Your task to perform on an android device: turn on airplane mode Image 0: 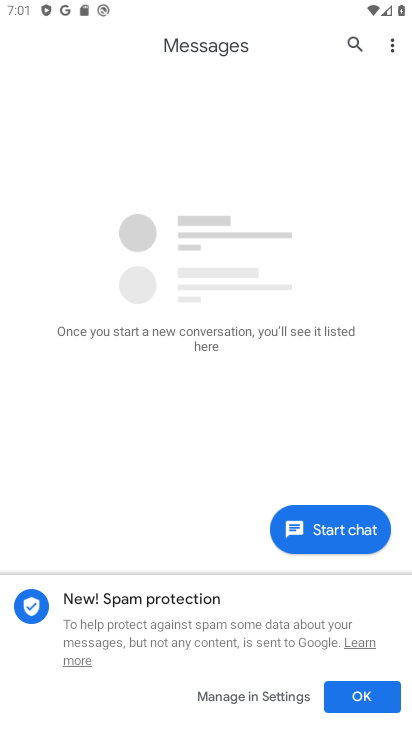
Step 0: press home button
Your task to perform on an android device: turn on airplane mode Image 1: 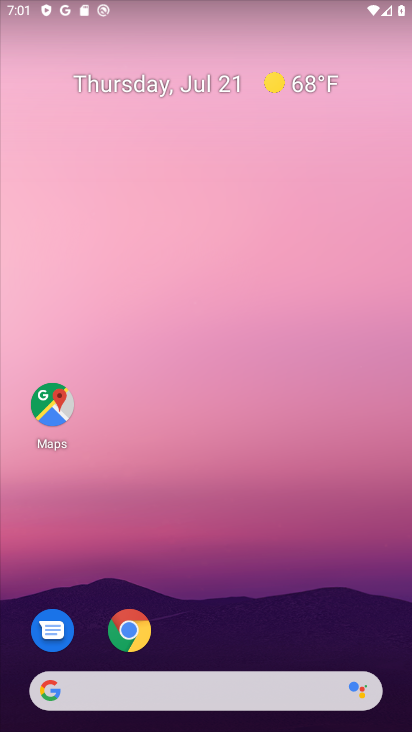
Step 1: drag from (251, 611) to (248, 266)
Your task to perform on an android device: turn on airplane mode Image 2: 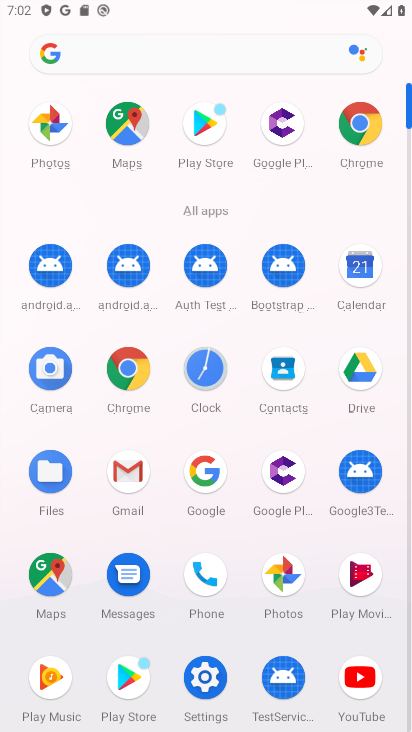
Step 2: click (198, 671)
Your task to perform on an android device: turn on airplane mode Image 3: 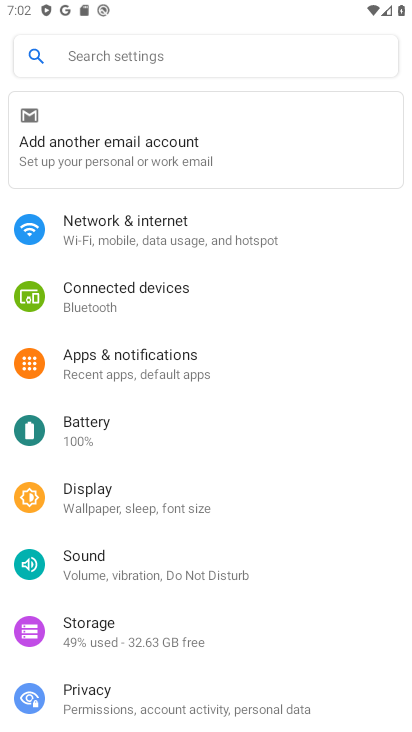
Step 3: click (114, 237)
Your task to perform on an android device: turn on airplane mode Image 4: 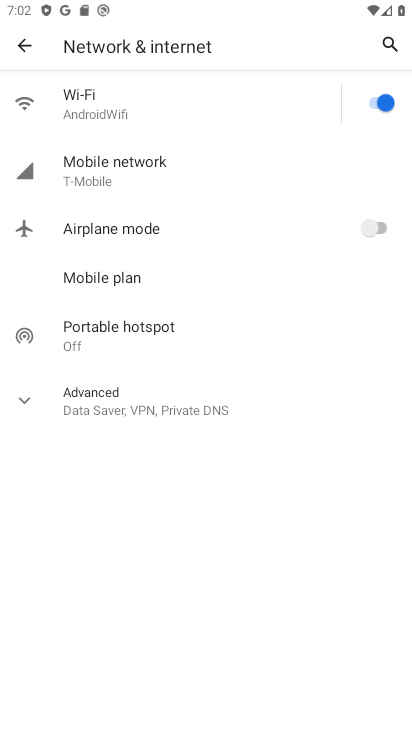
Step 4: click (380, 232)
Your task to perform on an android device: turn on airplane mode Image 5: 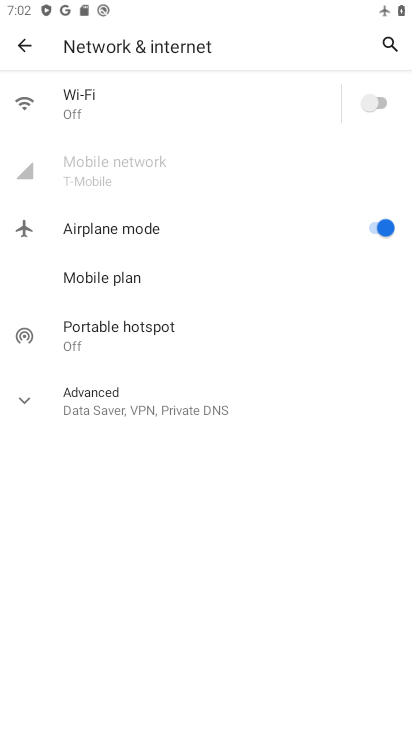
Step 5: task complete